Your task to perform on an android device: What's on my calendar today? Image 0: 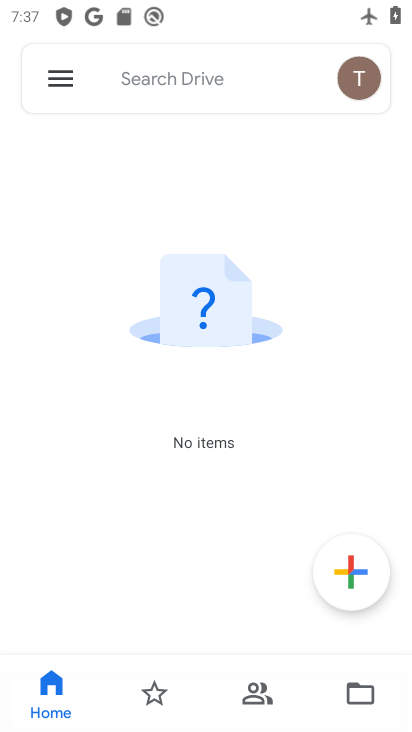
Step 0: press home button
Your task to perform on an android device: What's on my calendar today? Image 1: 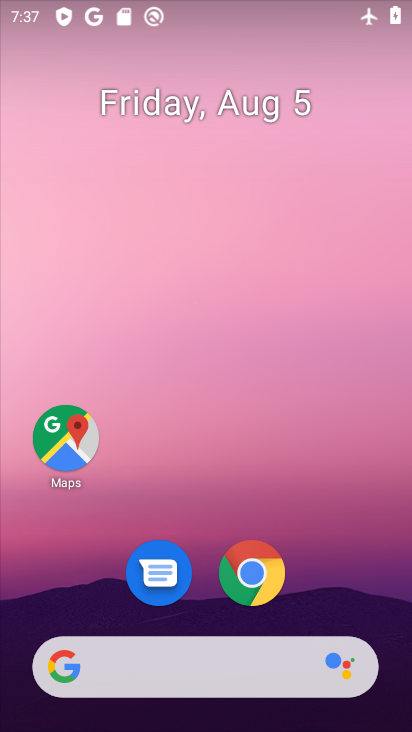
Step 1: drag from (212, 507) to (170, 63)
Your task to perform on an android device: What's on my calendar today? Image 2: 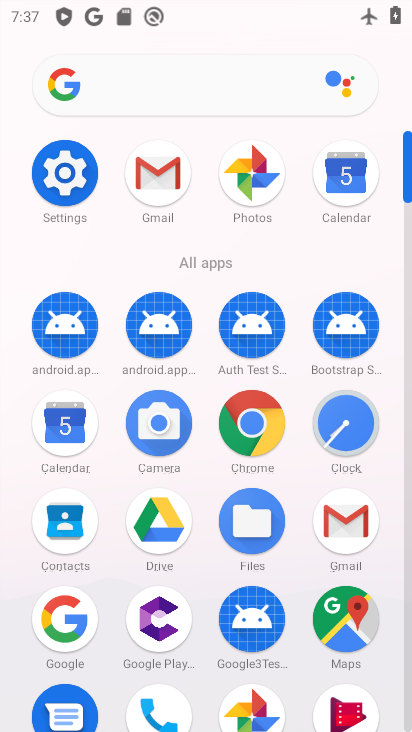
Step 2: click (360, 177)
Your task to perform on an android device: What's on my calendar today? Image 3: 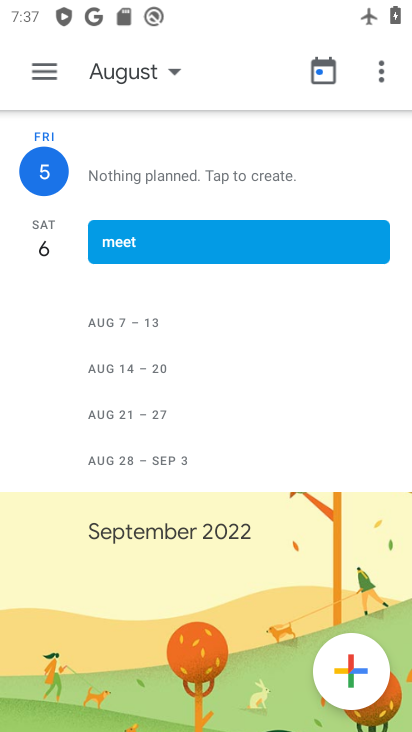
Step 3: task complete